Your task to perform on an android device: toggle improve location accuracy Image 0: 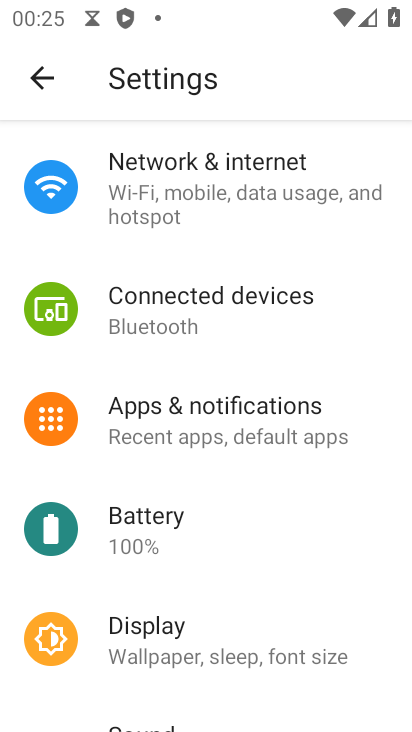
Step 0: press home button
Your task to perform on an android device: toggle improve location accuracy Image 1: 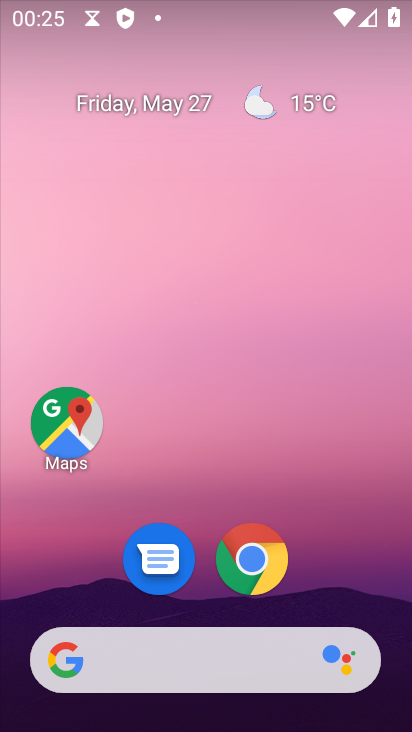
Step 1: drag from (361, 557) to (218, 2)
Your task to perform on an android device: toggle improve location accuracy Image 2: 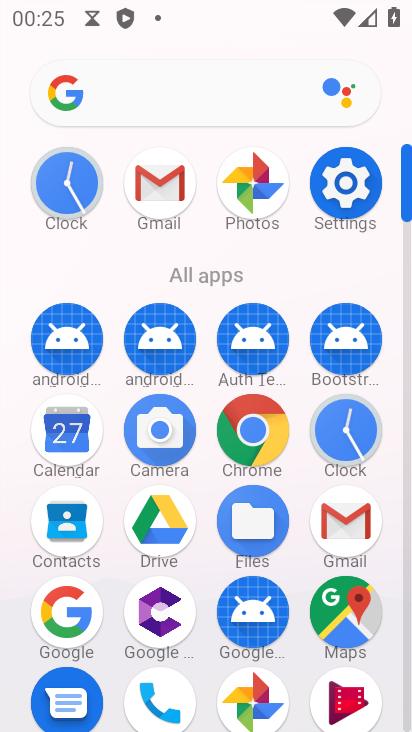
Step 2: click (334, 186)
Your task to perform on an android device: toggle improve location accuracy Image 3: 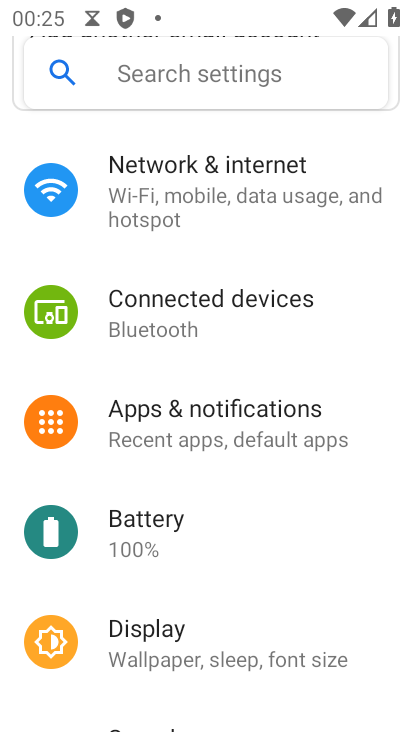
Step 3: drag from (239, 605) to (231, 160)
Your task to perform on an android device: toggle improve location accuracy Image 4: 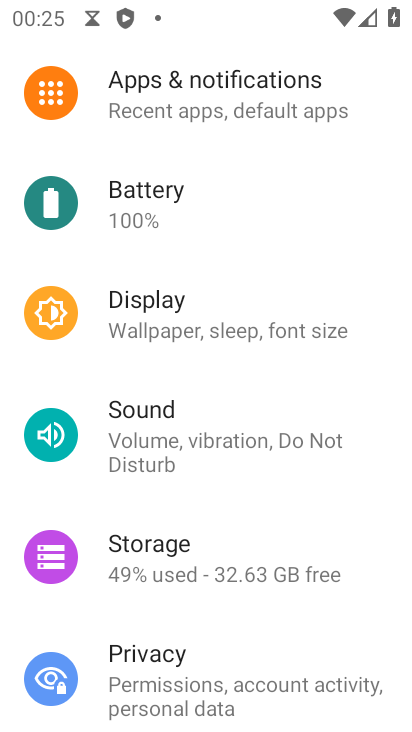
Step 4: drag from (227, 528) to (219, 268)
Your task to perform on an android device: toggle improve location accuracy Image 5: 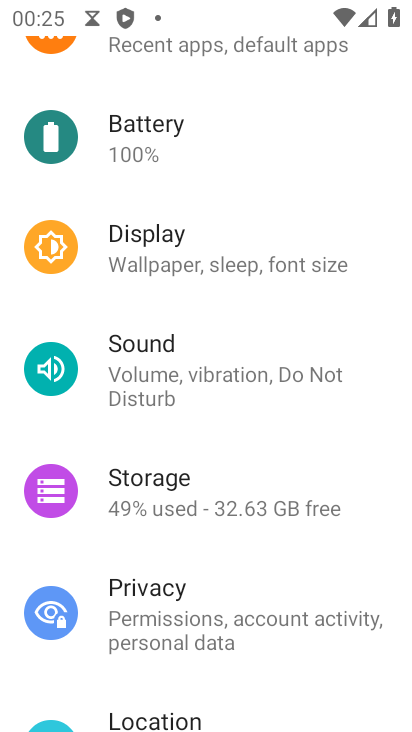
Step 5: drag from (226, 567) to (209, 158)
Your task to perform on an android device: toggle improve location accuracy Image 6: 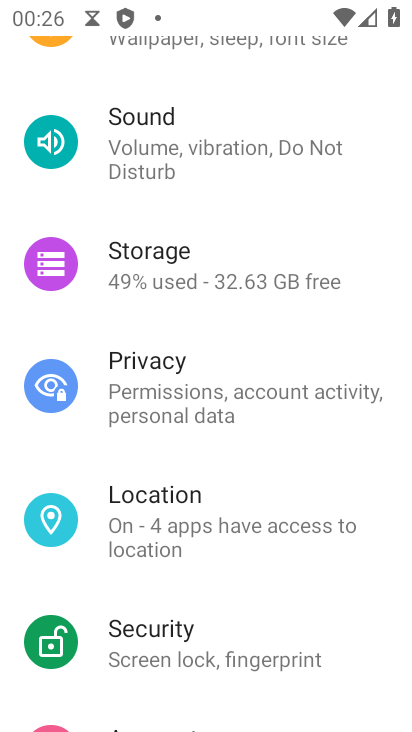
Step 6: click (207, 537)
Your task to perform on an android device: toggle improve location accuracy Image 7: 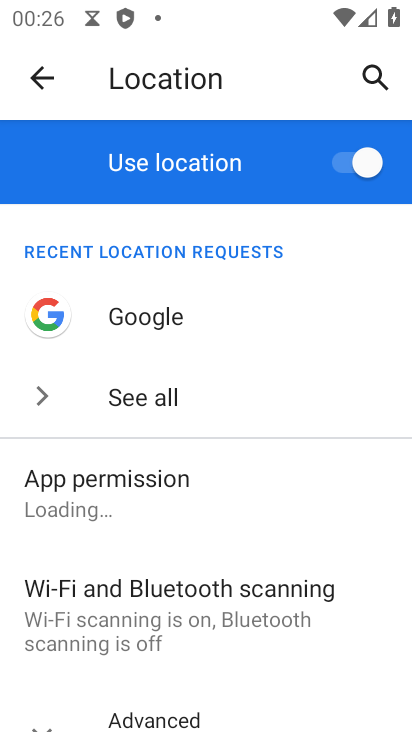
Step 7: drag from (239, 546) to (252, 251)
Your task to perform on an android device: toggle improve location accuracy Image 8: 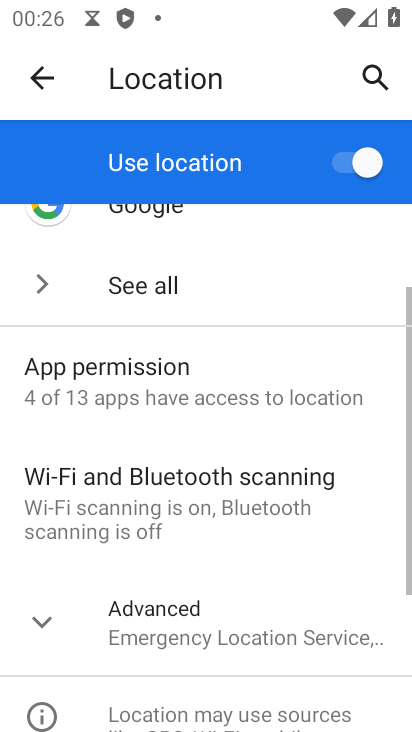
Step 8: click (199, 618)
Your task to perform on an android device: toggle improve location accuracy Image 9: 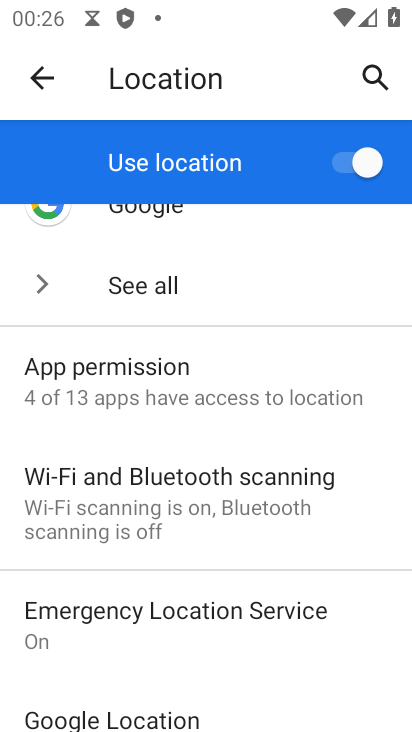
Step 9: drag from (271, 583) to (258, 354)
Your task to perform on an android device: toggle improve location accuracy Image 10: 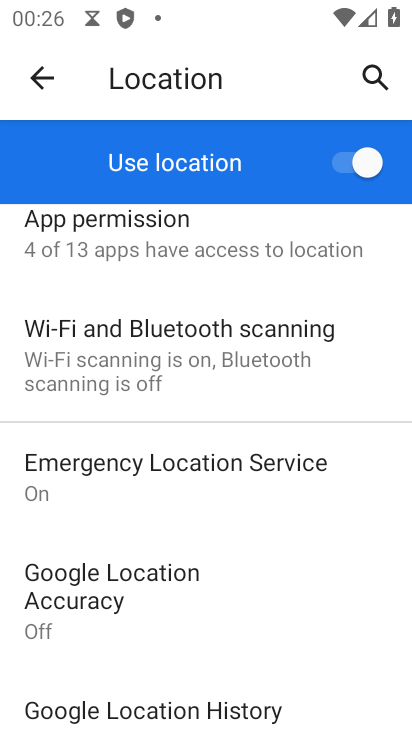
Step 10: drag from (258, 435) to (255, 471)
Your task to perform on an android device: toggle improve location accuracy Image 11: 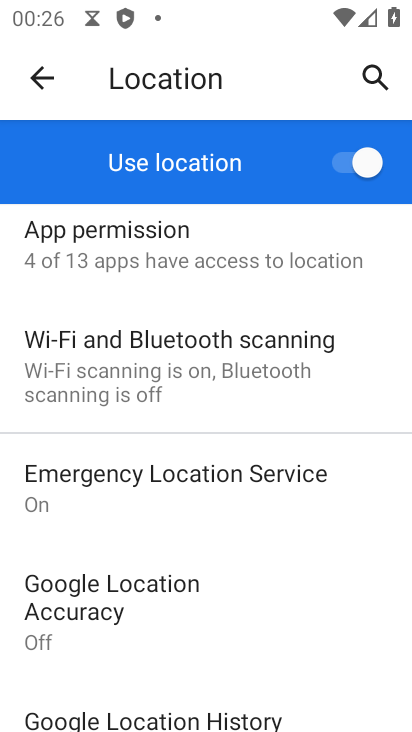
Step 11: drag from (266, 543) to (234, 252)
Your task to perform on an android device: toggle improve location accuracy Image 12: 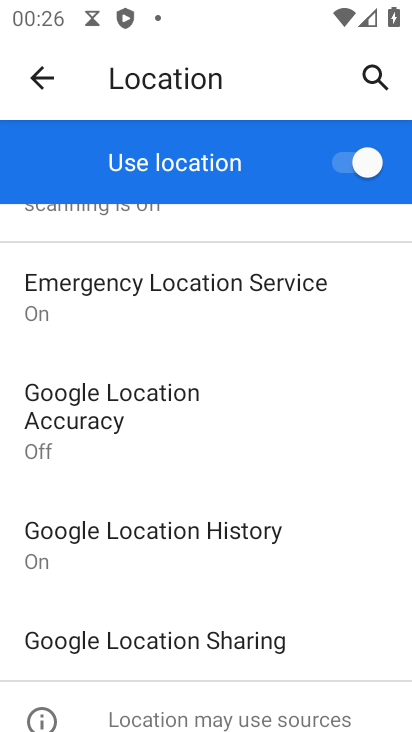
Step 12: click (142, 399)
Your task to perform on an android device: toggle improve location accuracy Image 13: 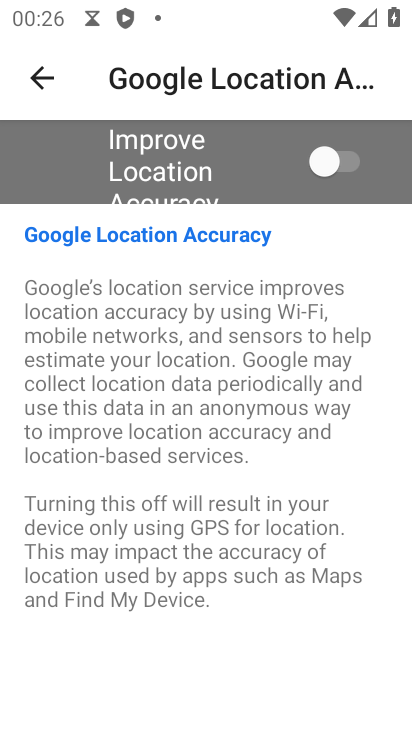
Step 13: click (332, 153)
Your task to perform on an android device: toggle improve location accuracy Image 14: 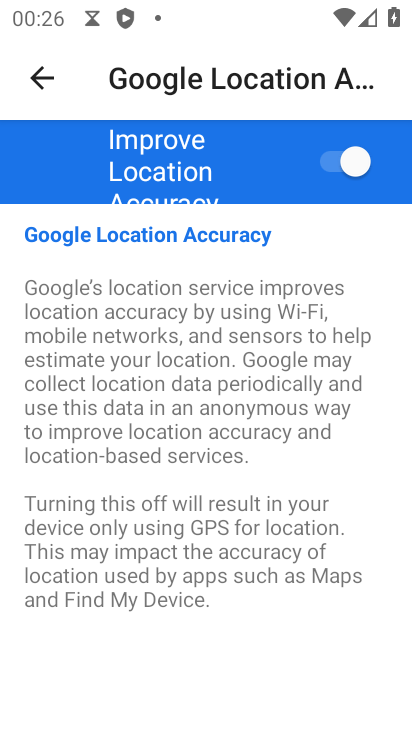
Step 14: task complete